Your task to perform on an android device: Open the web browser Image 0: 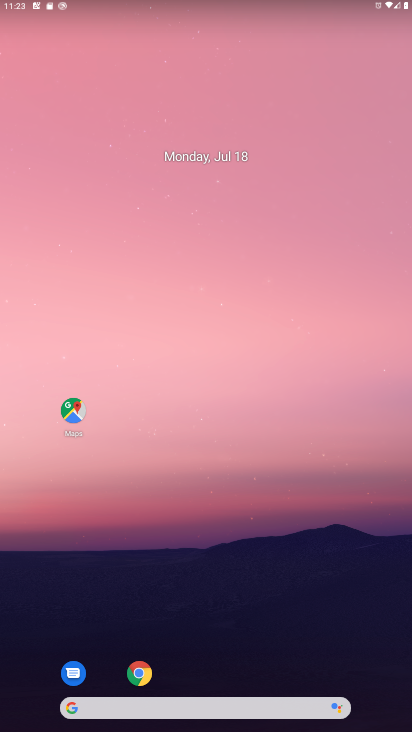
Step 0: click (144, 667)
Your task to perform on an android device: Open the web browser Image 1: 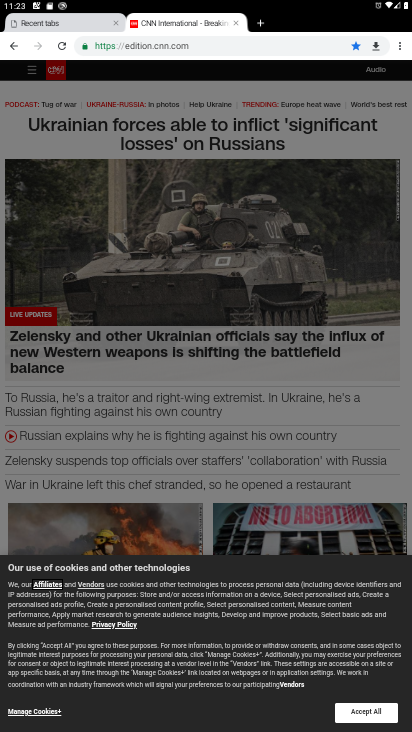
Step 1: task complete